Your task to perform on an android device: Go to location settings Image 0: 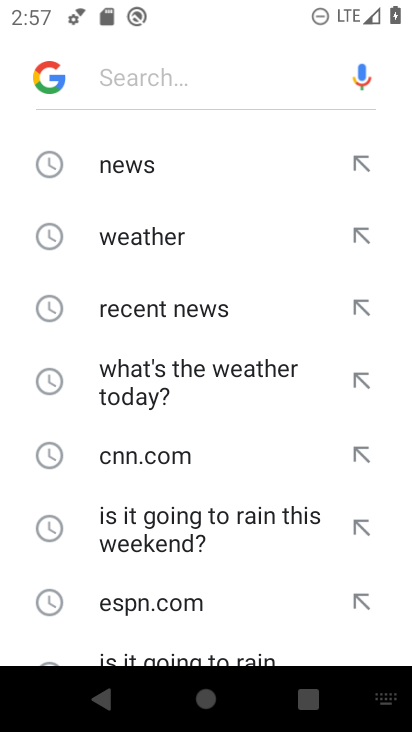
Step 0: press home button
Your task to perform on an android device: Go to location settings Image 1: 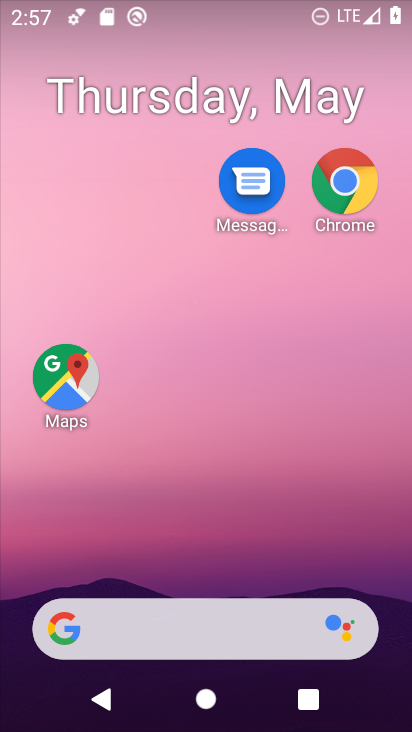
Step 1: drag from (177, 609) to (263, 0)
Your task to perform on an android device: Go to location settings Image 2: 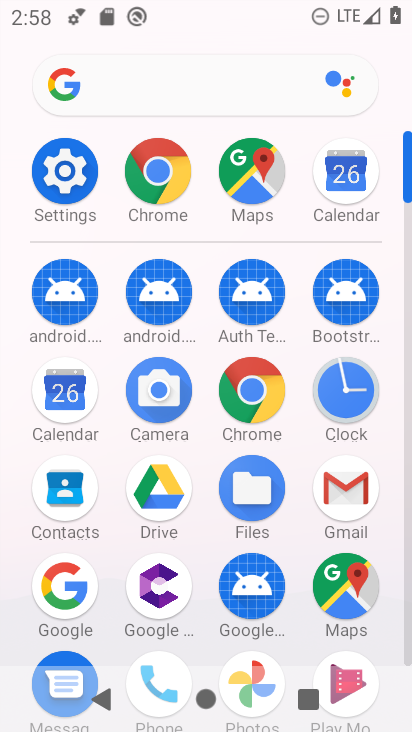
Step 2: click (68, 169)
Your task to perform on an android device: Go to location settings Image 3: 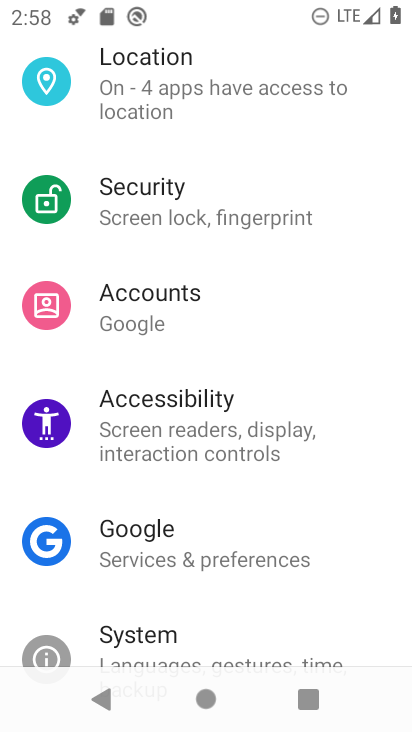
Step 3: click (209, 89)
Your task to perform on an android device: Go to location settings Image 4: 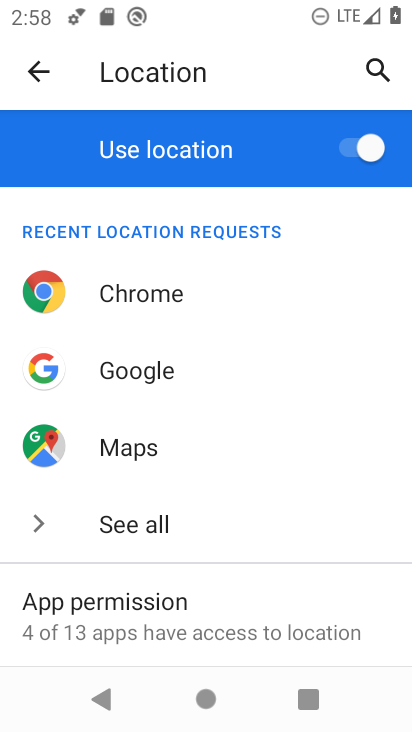
Step 4: task complete